Your task to perform on an android device: toggle sleep mode Image 0: 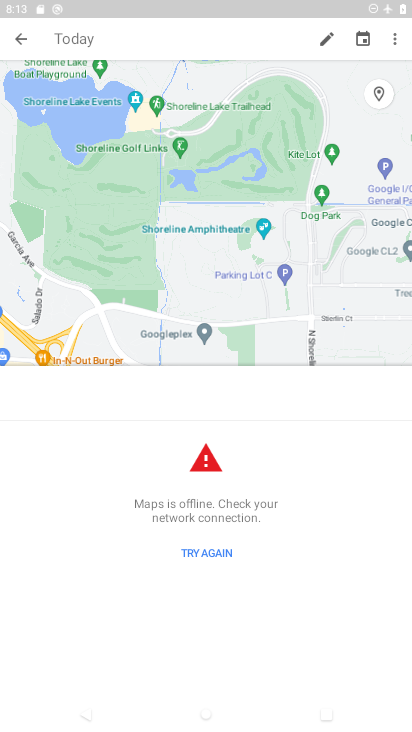
Step 0: press home button
Your task to perform on an android device: toggle sleep mode Image 1: 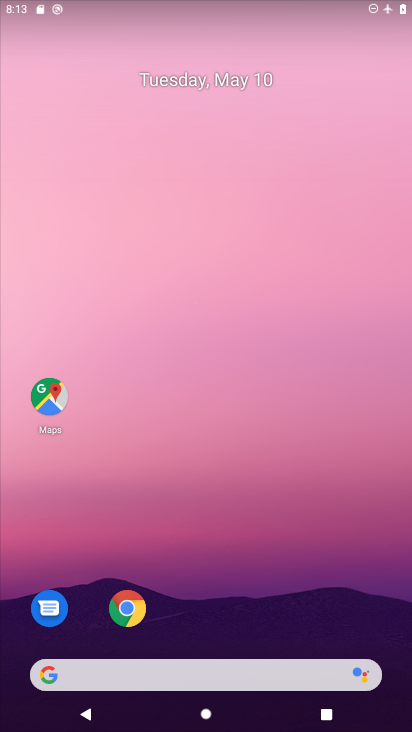
Step 1: drag from (282, 467) to (282, 119)
Your task to perform on an android device: toggle sleep mode Image 2: 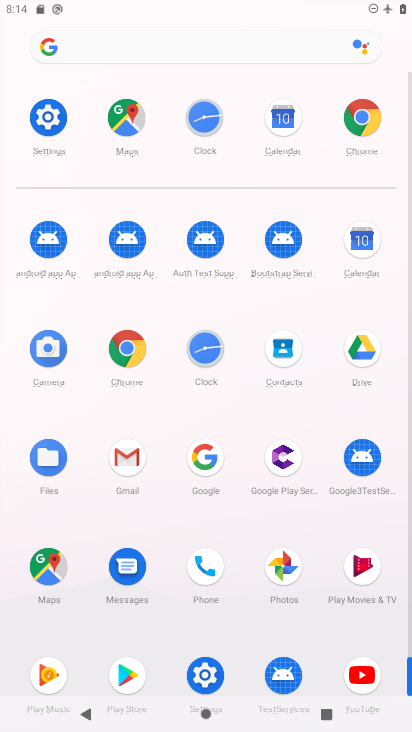
Step 2: click (52, 113)
Your task to perform on an android device: toggle sleep mode Image 3: 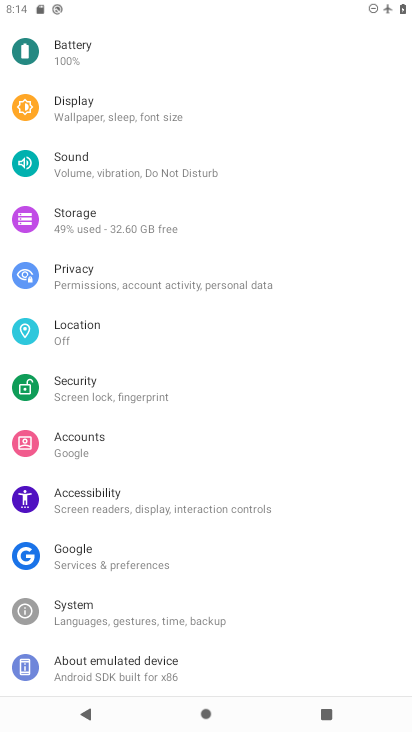
Step 3: task complete